Your task to perform on an android device: Open ESPN.com Image 0: 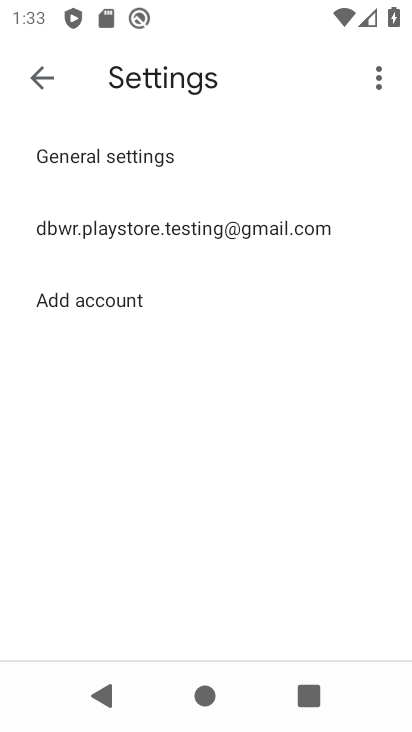
Step 0: press home button
Your task to perform on an android device: Open ESPN.com Image 1: 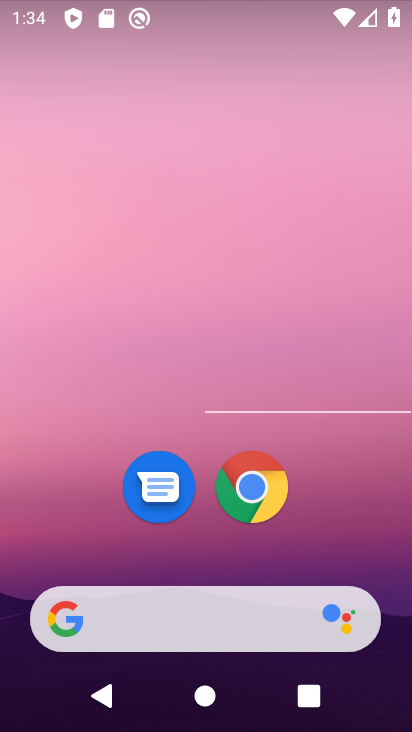
Step 1: drag from (381, 545) to (381, 507)
Your task to perform on an android device: Open ESPN.com Image 2: 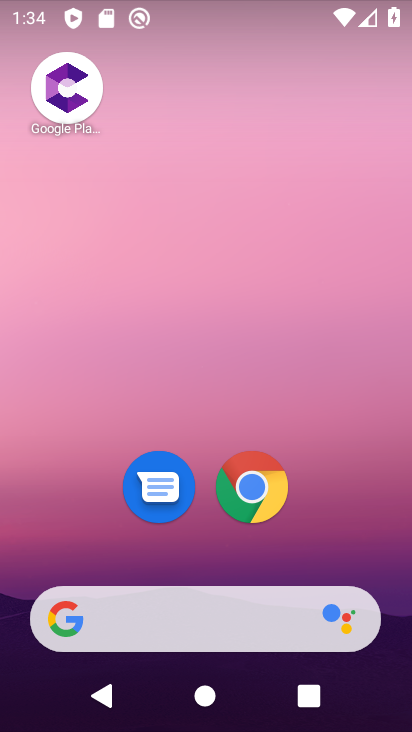
Step 2: drag from (348, 544) to (358, 160)
Your task to perform on an android device: Open ESPN.com Image 3: 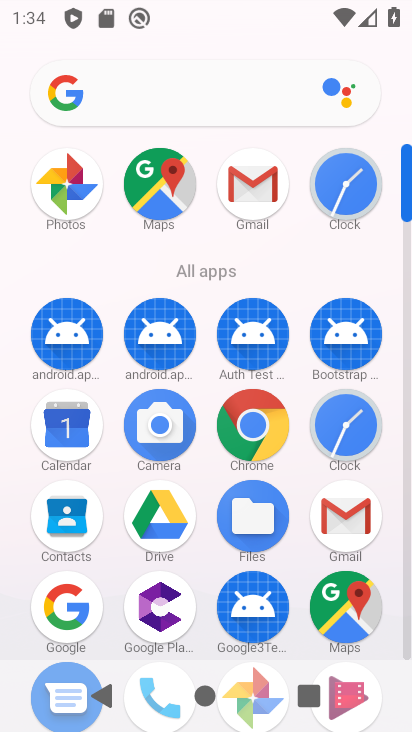
Step 3: click (244, 437)
Your task to perform on an android device: Open ESPN.com Image 4: 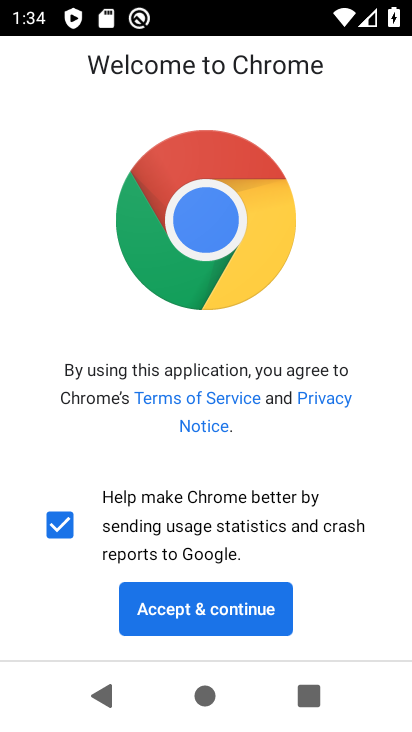
Step 4: click (195, 616)
Your task to perform on an android device: Open ESPN.com Image 5: 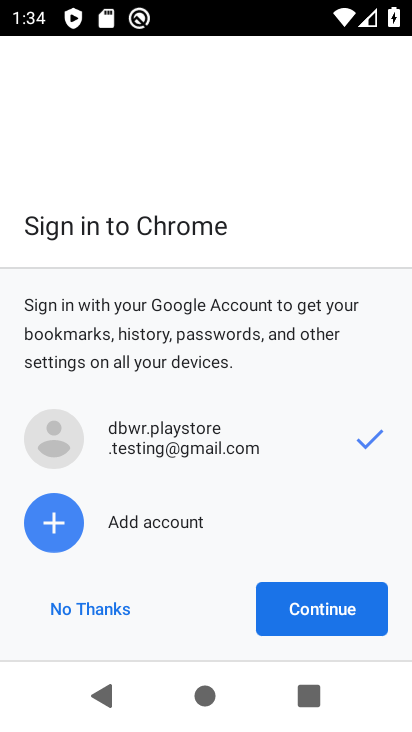
Step 5: click (341, 614)
Your task to perform on an android device: Open ESPN.com Image 6: 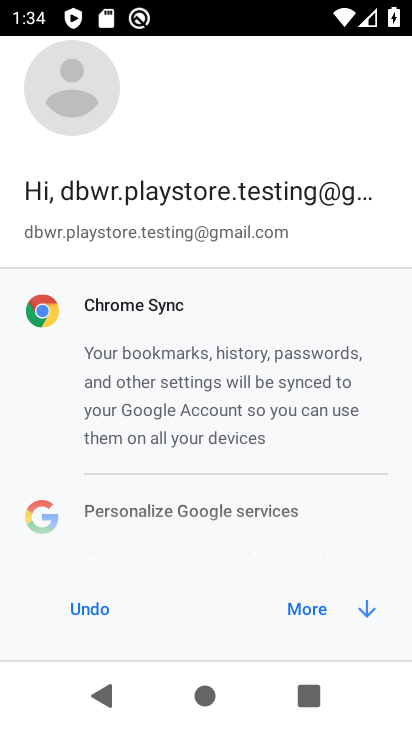
Step 6: click (317, 608)
Your task to perform on an android device: Open ESPN.com Image 7: 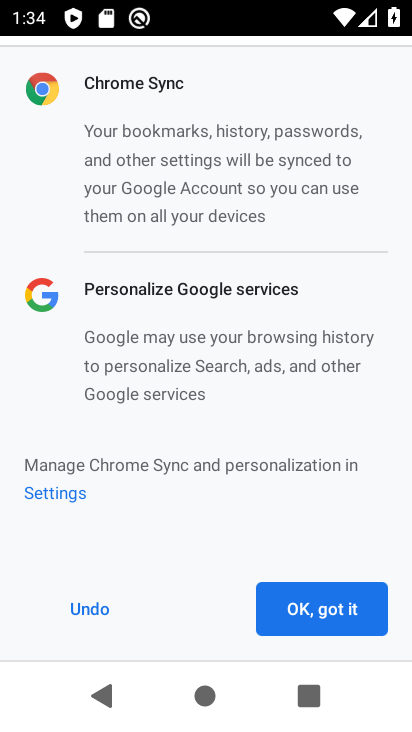
Step 7: click (271, 611)
Your task to perform on an android device: Open ESPN.com Image 8: 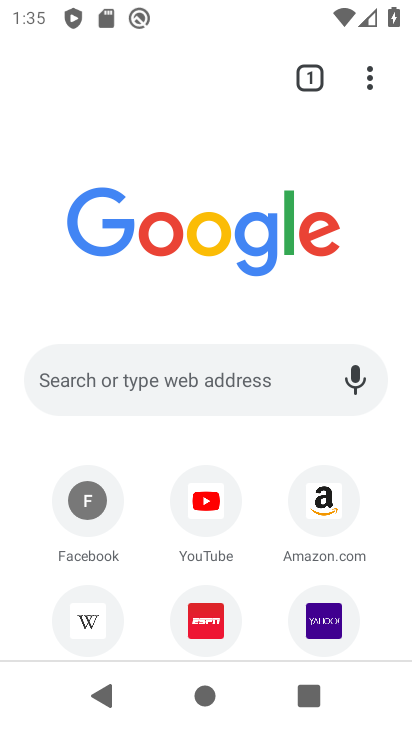
Step 8: click (190, 633)
Your task to perform on an android device: Open ESPN.com Image 9: 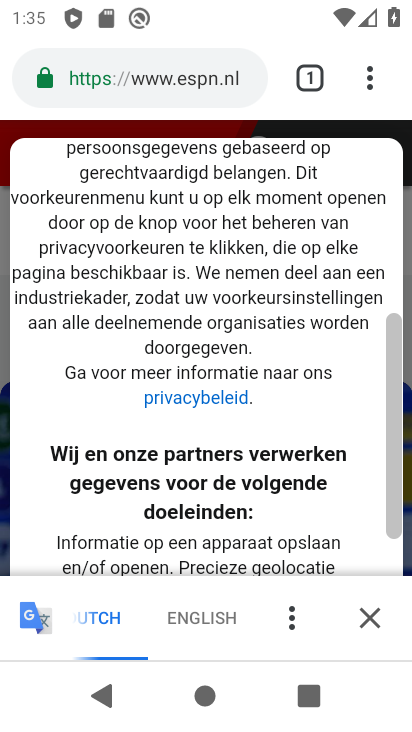
Step 9: task complete